Your task to perform on an android device: open chrome privacy settings Image 0: 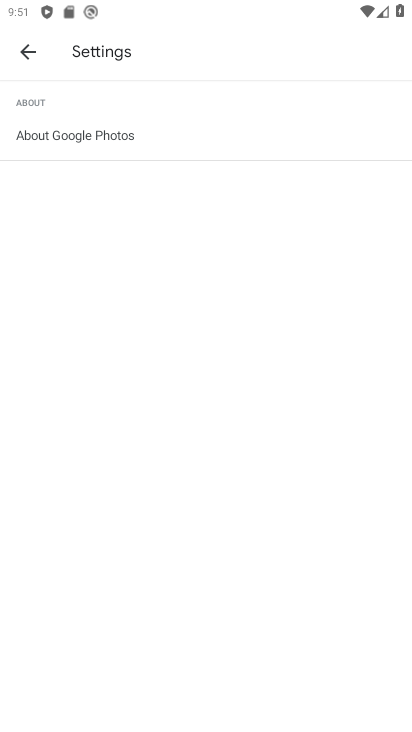
Step 0: press home button
Your task to perform on an android device: open chrome privacy settings Image 1: 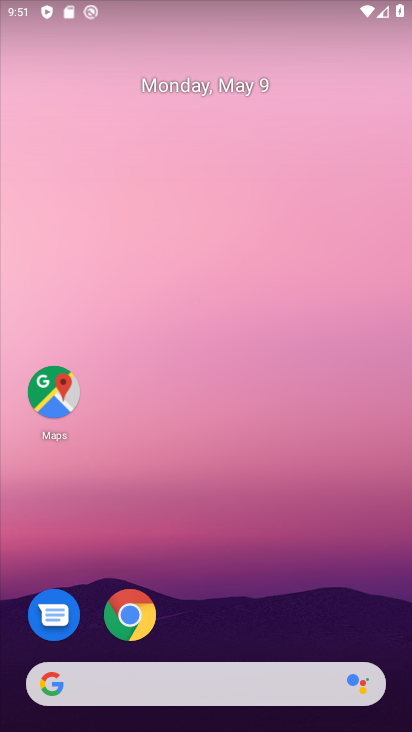
Step 1: click (140, 611)
Your task to perform on an android device: open chrome privacy settings Image 2: 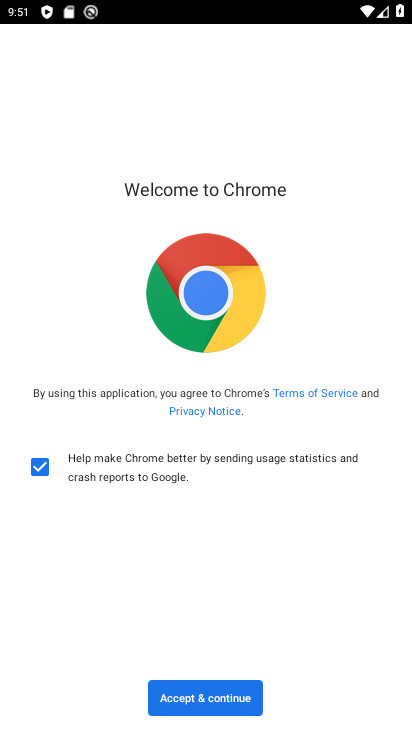
Step 2: click (218, 690)
Your task to perform on an android device: open chrome privacy settings Image 3: 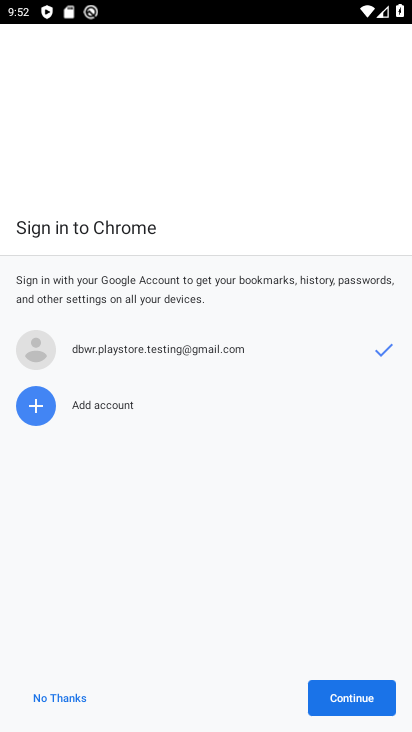
Step 3: click (337, 699)
Your task to perform on an android device: open chrome privacy settings Image 4: 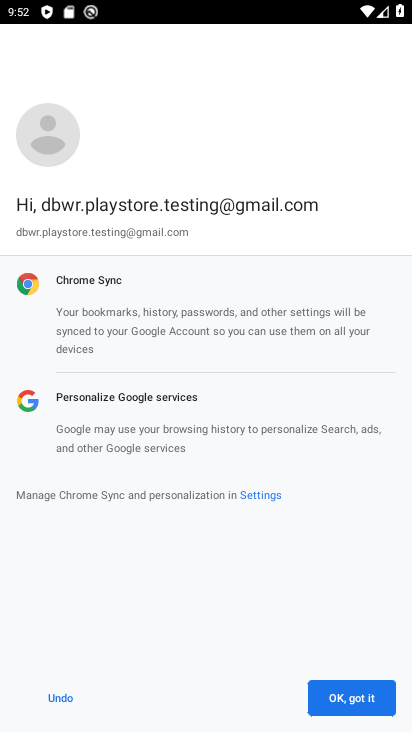
Step 4: click (337, 699)
Your task to perform on an android device: open chrome privacy settings Image 5: 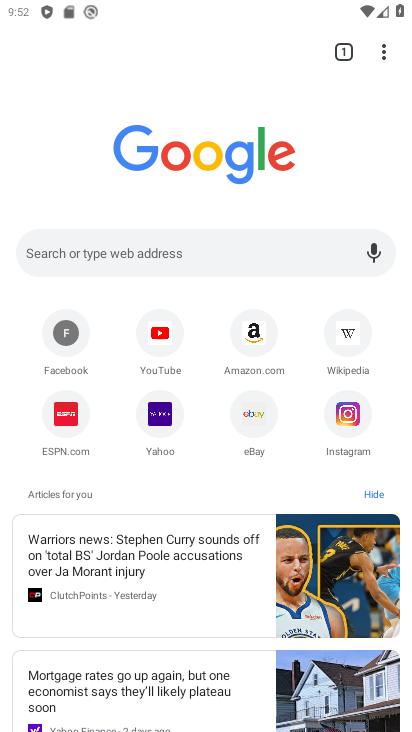
Step 5: click (383, 54)
Your task to perform on an android device: open chrome privacy settings Image 6: 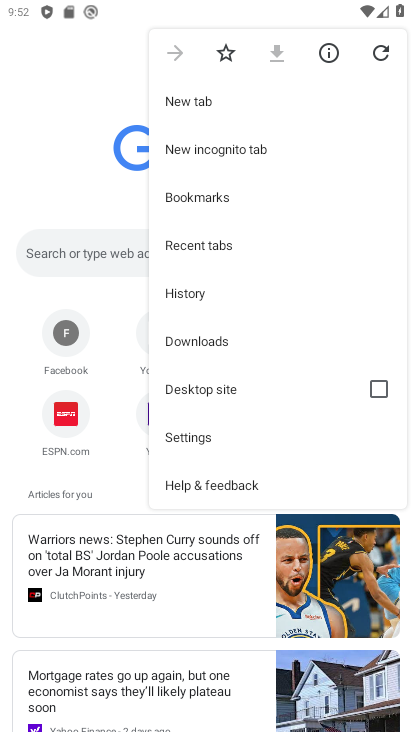
Step 6: click (214, 437)
Your task to perform on an android device: open chrome privacy settings Image 7: 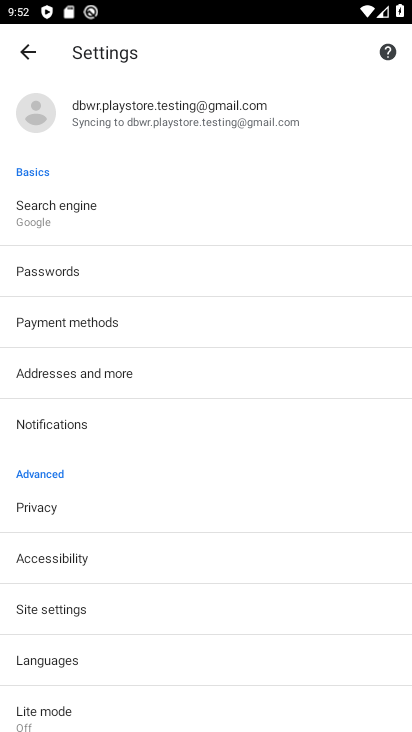
Step 7: click (67, 513)
Your task to perform on an android device: open chrome privacy settings Image 8: 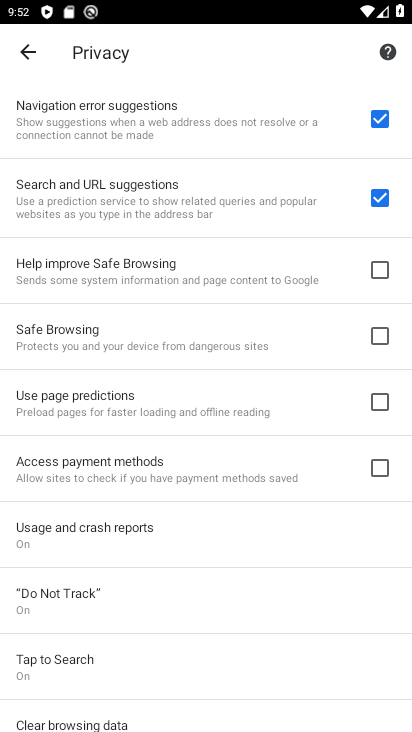
Step 8: task complete